Your task to perform on an android device: check the backup settings in the google photos Image 0: 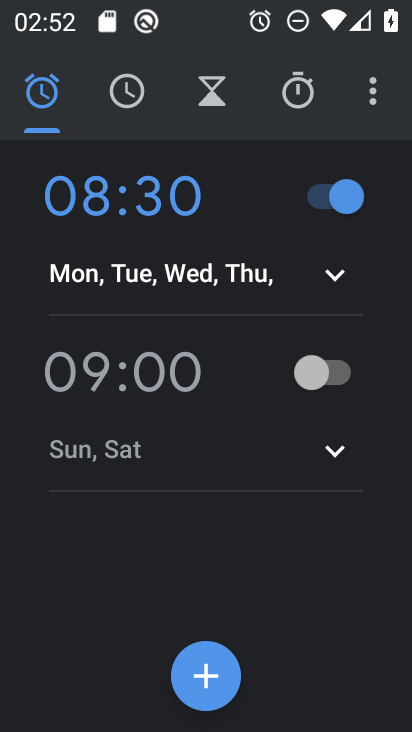
Step 0: press home button
Your task to perform on an android device: check the backup settings in the google photos Image 1: 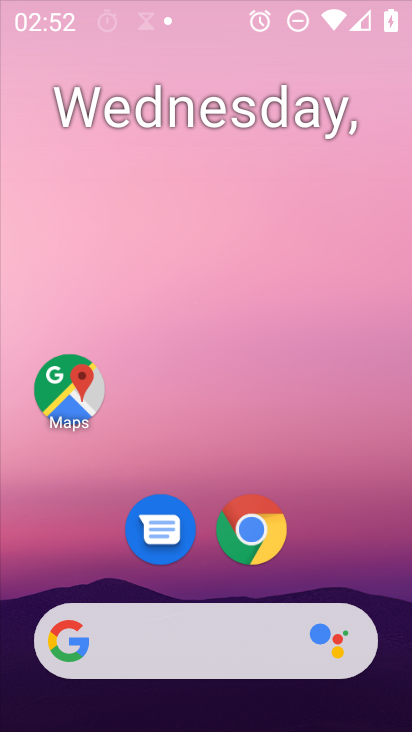
Step 1: drag from (159, 716) to (300, 31)
Your task to perform on an android device: check the backup settings in the google photos Image 2: 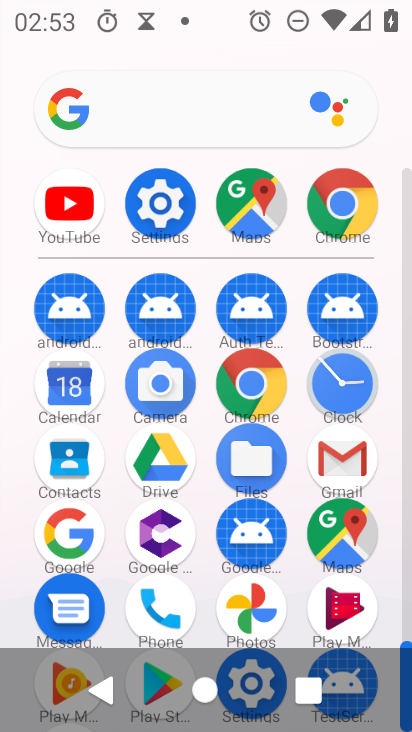
Step 2: click (238, 601)
Your task to perform on an android device: check the backup settings in the google photos Image 3: 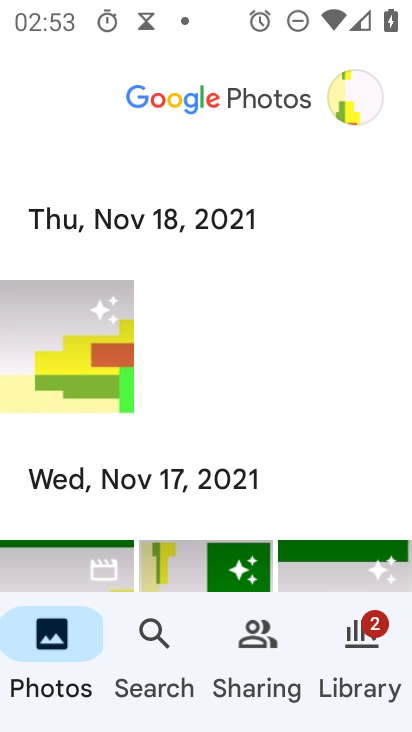
Step 3: click (354, 112)
Your task to perform on an android device: check the backup settings in the google photos Image 4: 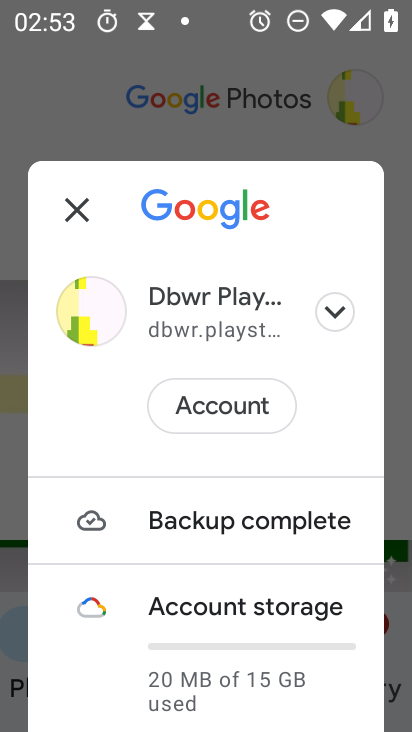
Step 4: drag from (219, 569) to (237, 64)
Your task to perform on an android device: check the backup settings in the google photos Image 5: 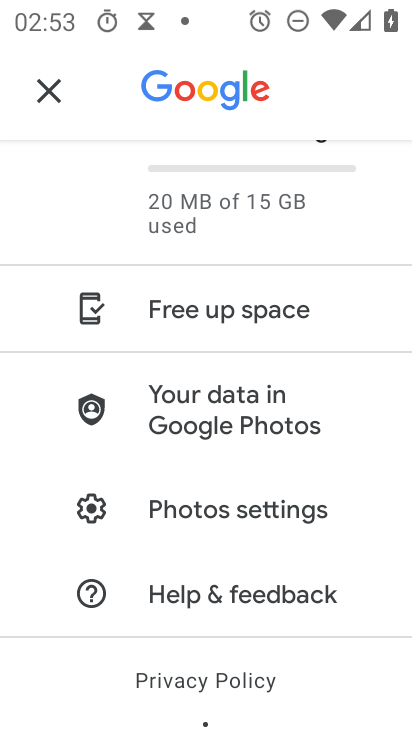
Step 5: click (261, 515)
Your task to perform on an android device: check the backup settings in the google photos Image 6: 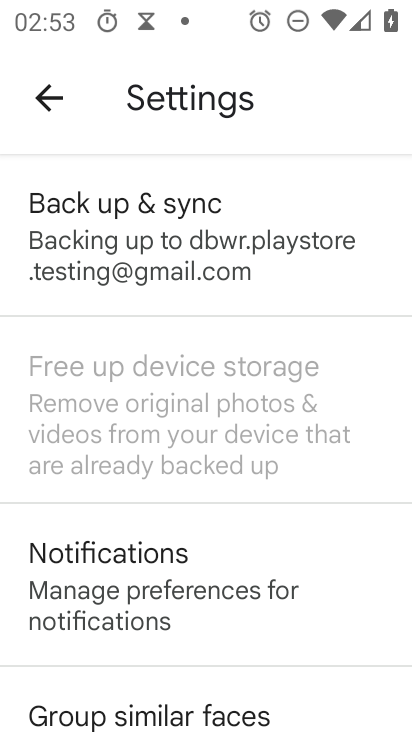
Step 6: click (230, 247)
Your task to perform on an android device: check the backup settings in the google photos Image 7: 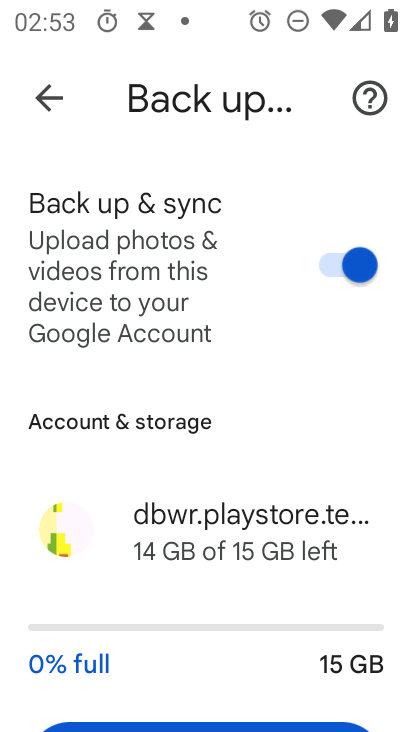
Step 7: task complete